Your task to perform on an android device: turn off notifications settings in the gmail app Image 0: 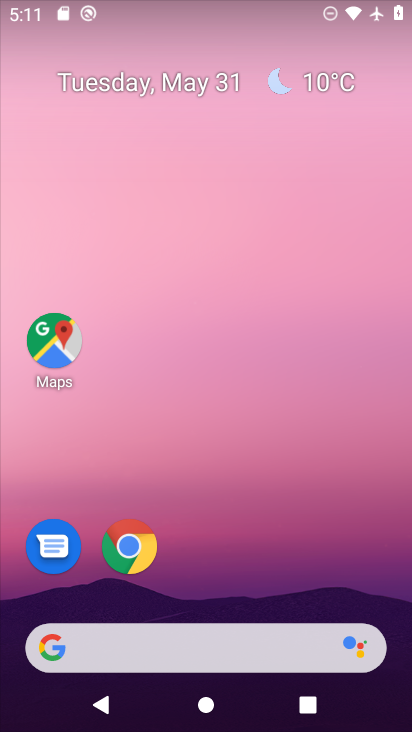
Step 0: drag from (276, 537) to (194, 7)
Your task to perform on an android device: turn off notifications settings in the gmail app Image 1: 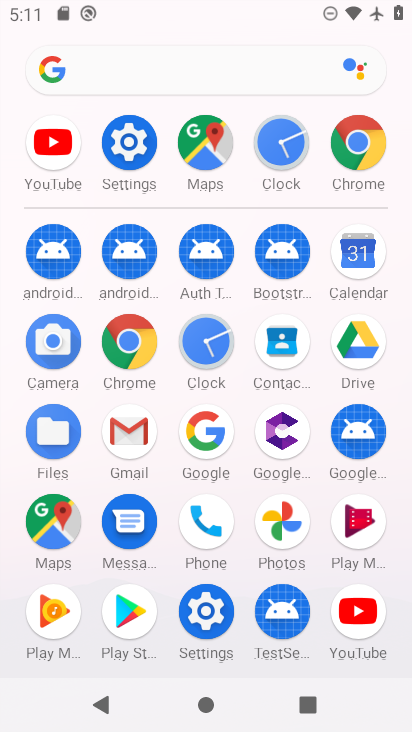
Step 1: click (140, 438)
Your task to perform on an android device: turn off notifications settings in the gmail app Image 2: 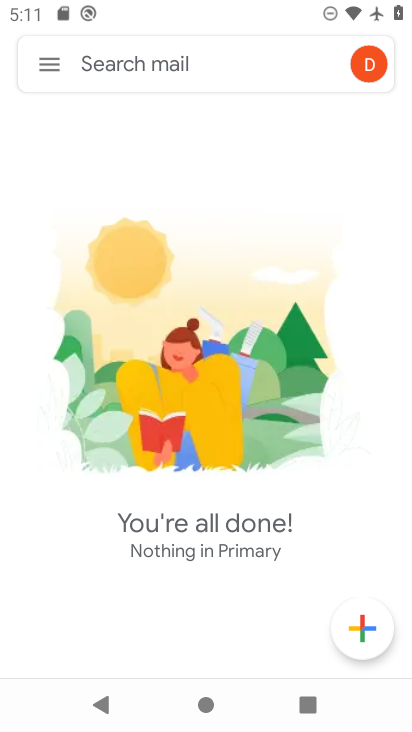
Step 2: click (54, 65)
Your task to perform on an android device: turn off notifications settings in the gmail app Image 3: 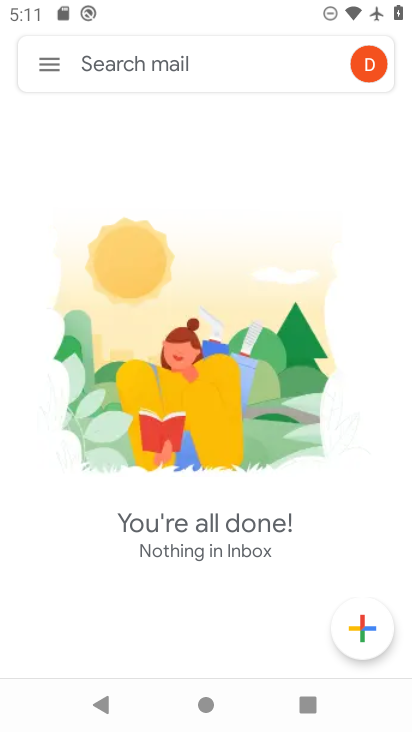
Step 3: click (56, 55)
Your task to perform on an android device: turn off notifications settings in the gmail app Image 4: 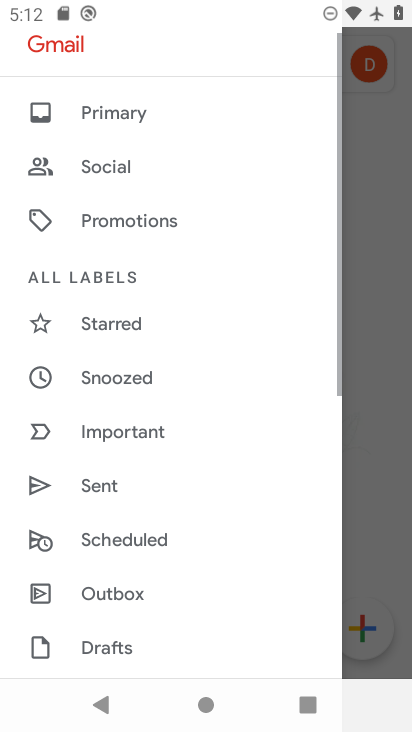
Step 4: drag from (211, 550) to (110, 26)
Your task to perform on an android device: turn off notifications settings in the gmail app Image 5: 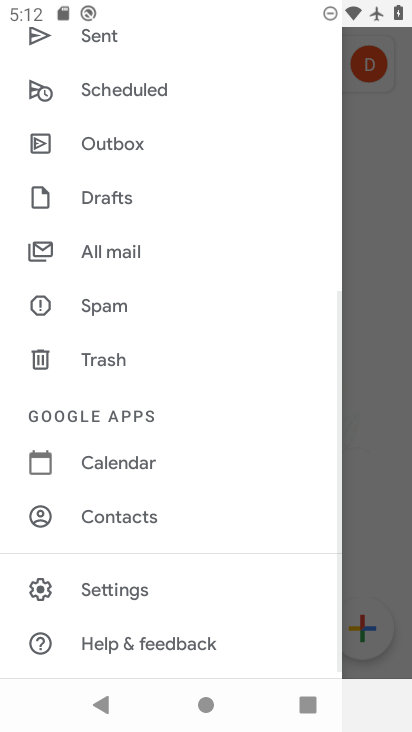
Step 5: click (157, 592)
Your task to perform on an android device: turn off notifications settings in the gmail app Image 6: 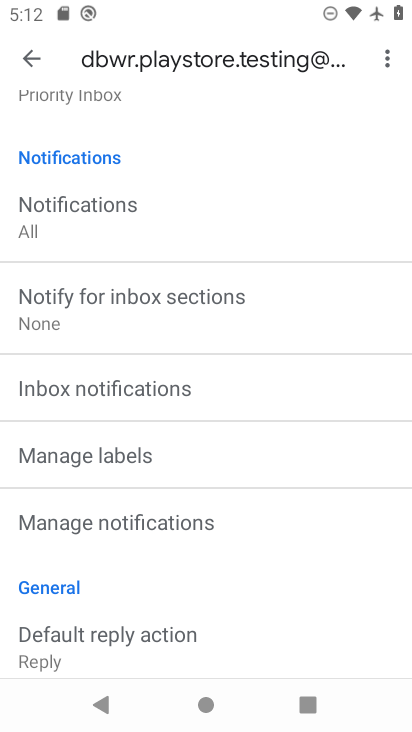
Step 6: click (125, 222)
Your task to perform on an android device: turn off notifications settings in the gmail app Image 7: 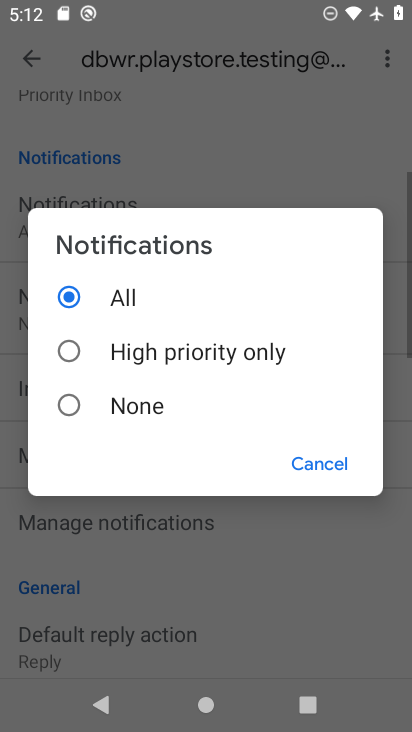
Step 7: click (136, 401)
Your task to perform on an android device: turn off notifications settings in the gmail app Image 8: 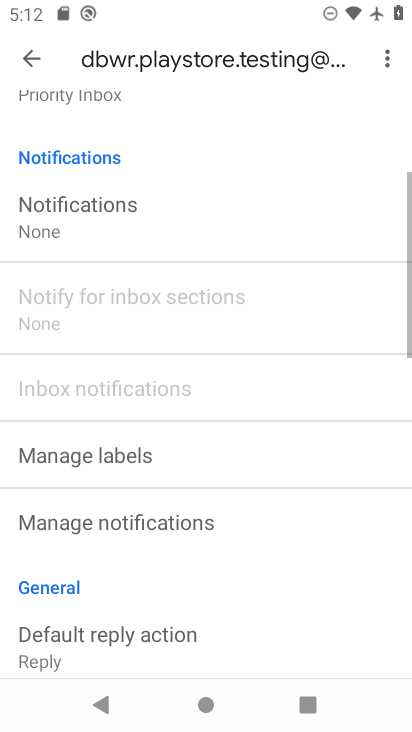
Step 8: task complete